Your task to perform on an android device: turn off translation in the chrome app Image 0: 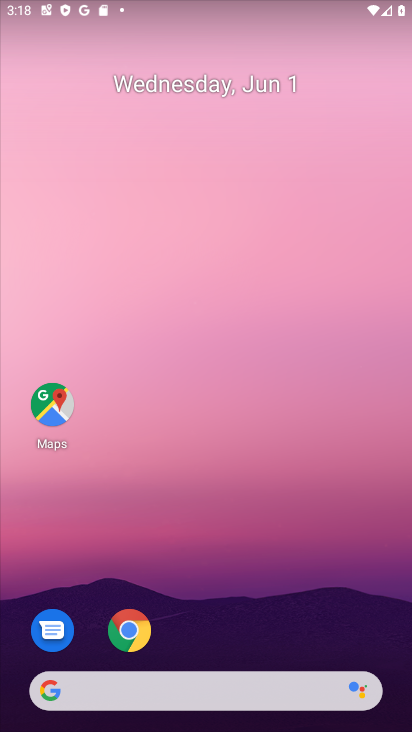
Step 0: click (123, 617)
Your task to perform on an android device: turn off translation in the chrome app Image 1: 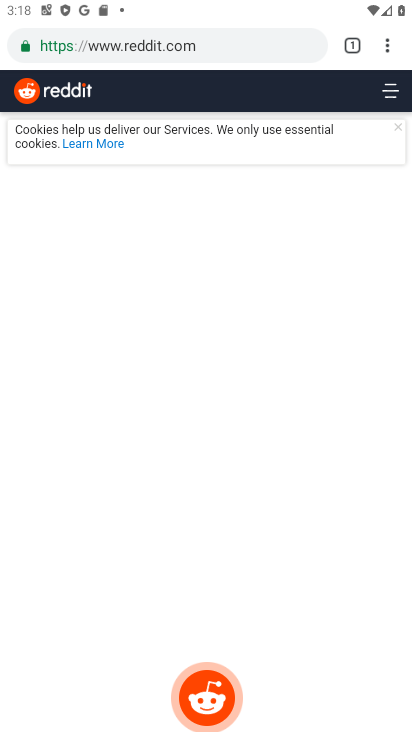
Step 1: drag from (390, 42) to (242, 540)
Your task to perform on an android device: turn off translation in the chrome app Image 2: 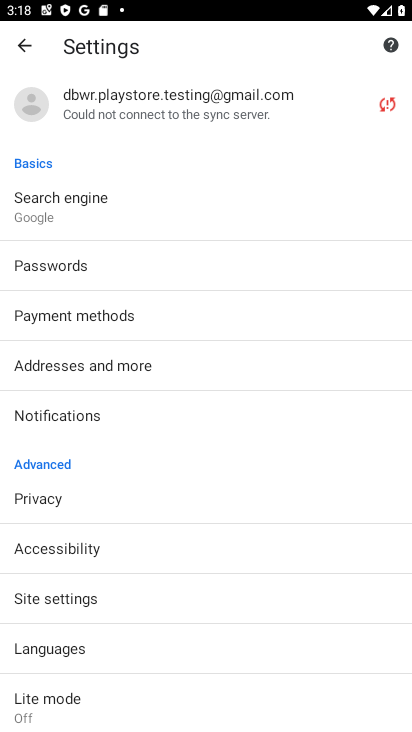
Step 2: click (29, 633)
Your task to perform on an android device: turn off translation in the chrome app Image 3: 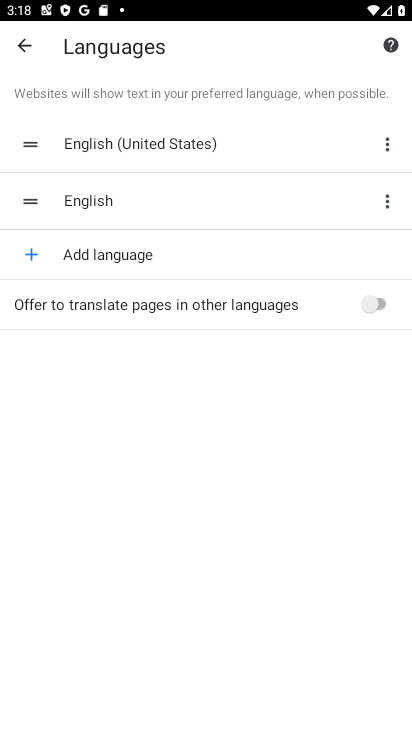
Step 3: task complete